Your task to perform on an android device: Go to settings Image 0: 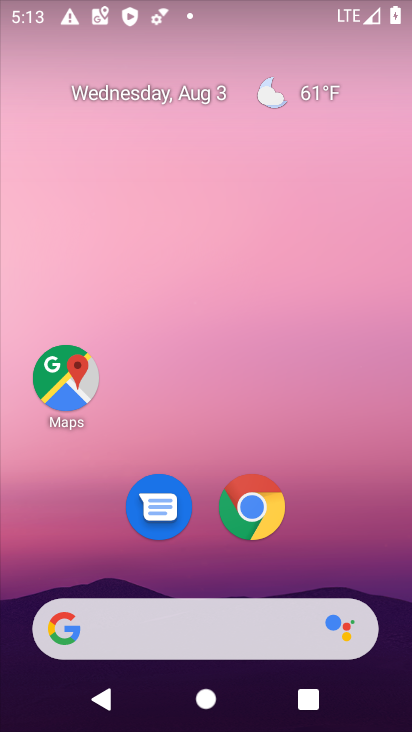
Step 0: drag from (351, 496) to (367, 28)
Your task to perform on an android device: Go to settings Image 1: 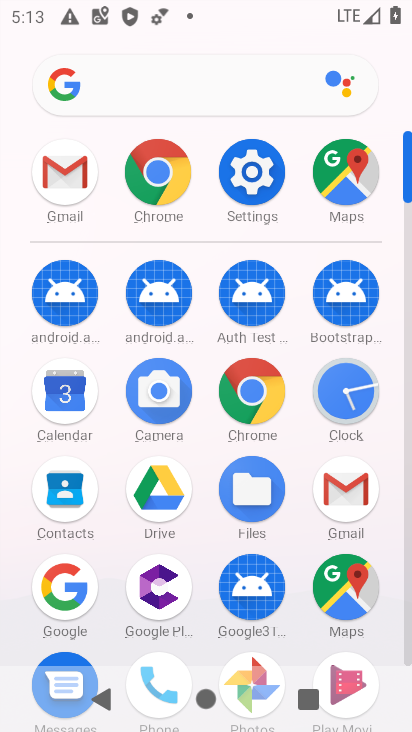
Step 1: click (257, 171)
Your task to perform on an android device: Go to settings Image 2: 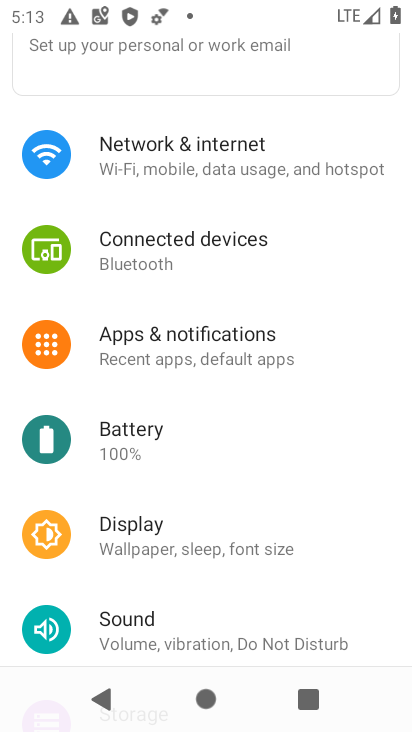
Step 2: task complete